Your task to perform on an android device: uninstall "NewsBreak: Local News & Alerts" Image 0: 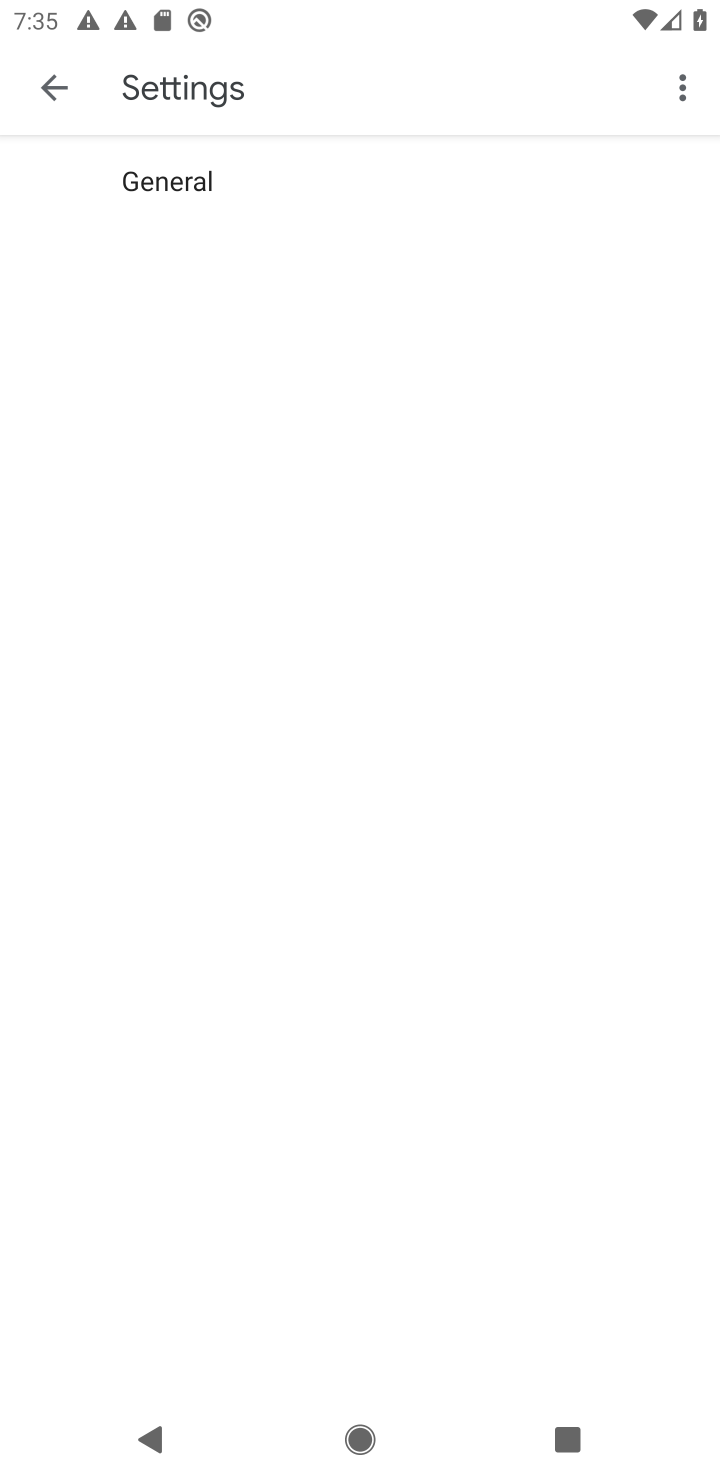
Step 0: press home button
Your task to perform on an android device: uninstall "NewsBreak: Local News & Alerts" Image 1: 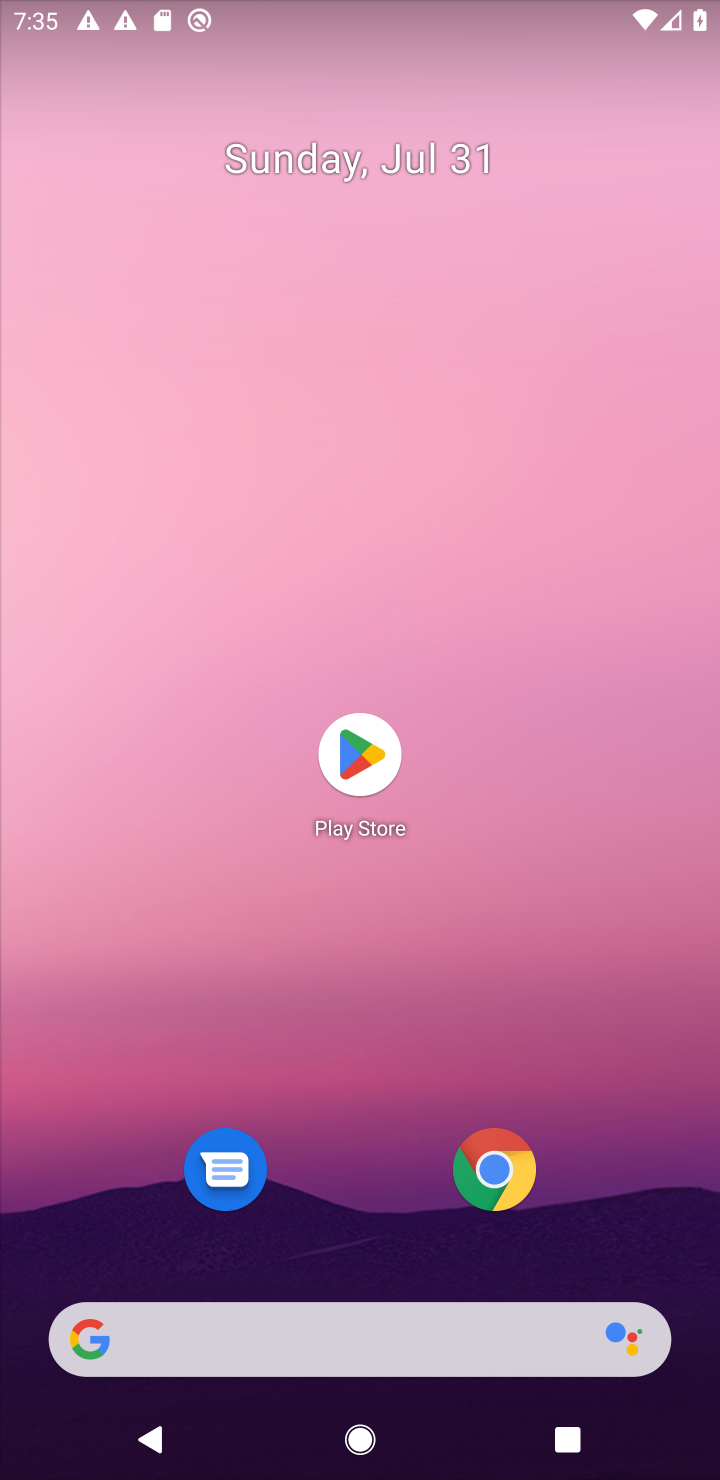
Step 1: click (367, 755)
Your task to perform on an android device: uninstall "NewsBreak: Local News & Alerts" Image 2: 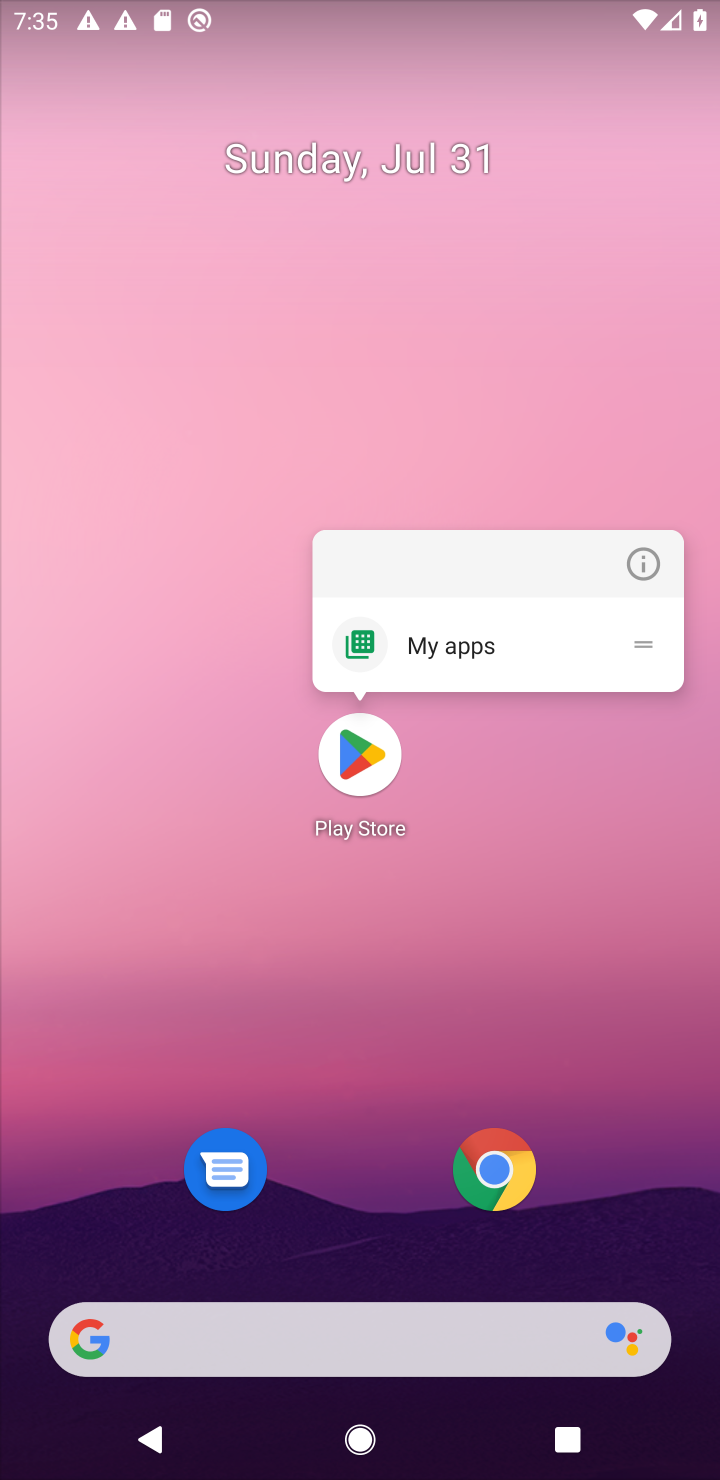
Step 2: click (358, 755)
Your task to perform on an android device: uninstall "NewsBreak: Local News & Alerts" Image 3: 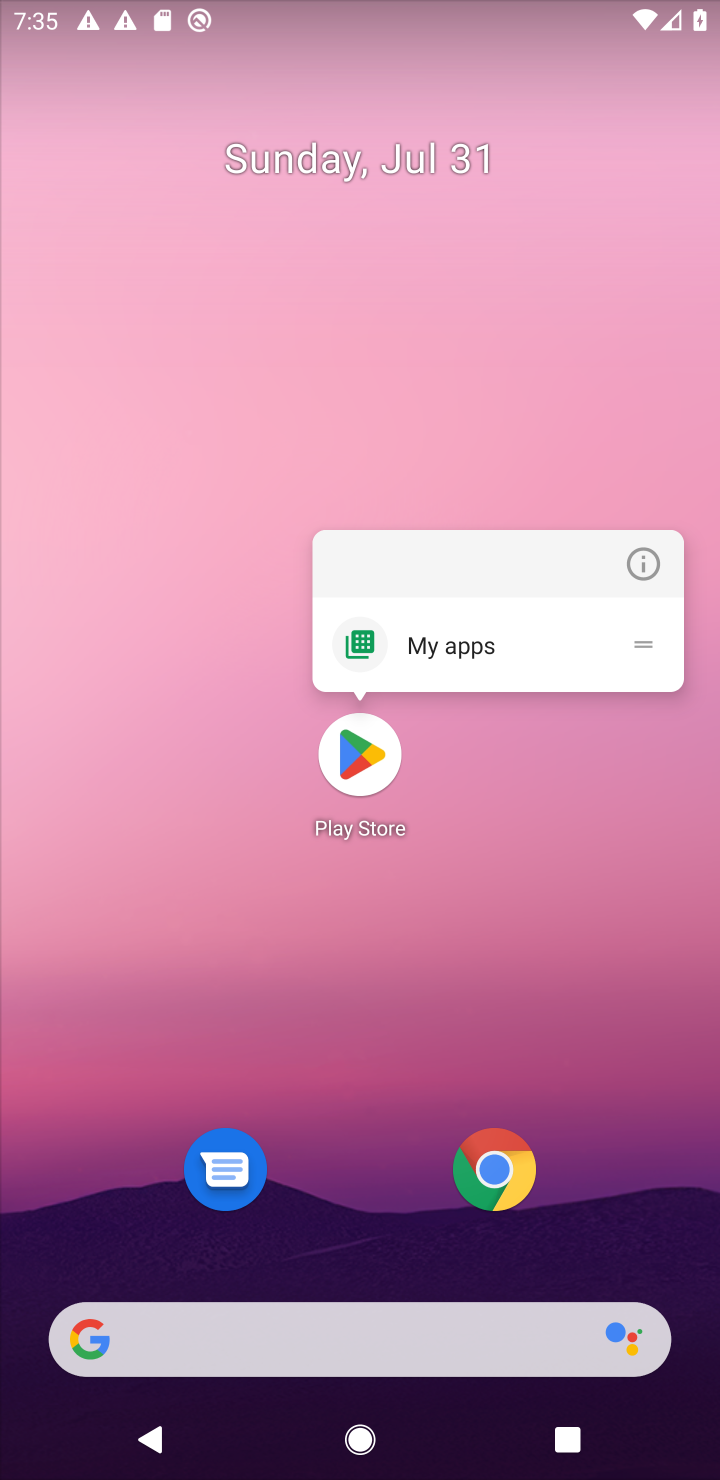
Step 3: click (358, 755)
Your task to perform on an android device: uninstall "NewsBreak: Local News & Alerts" Image 4: 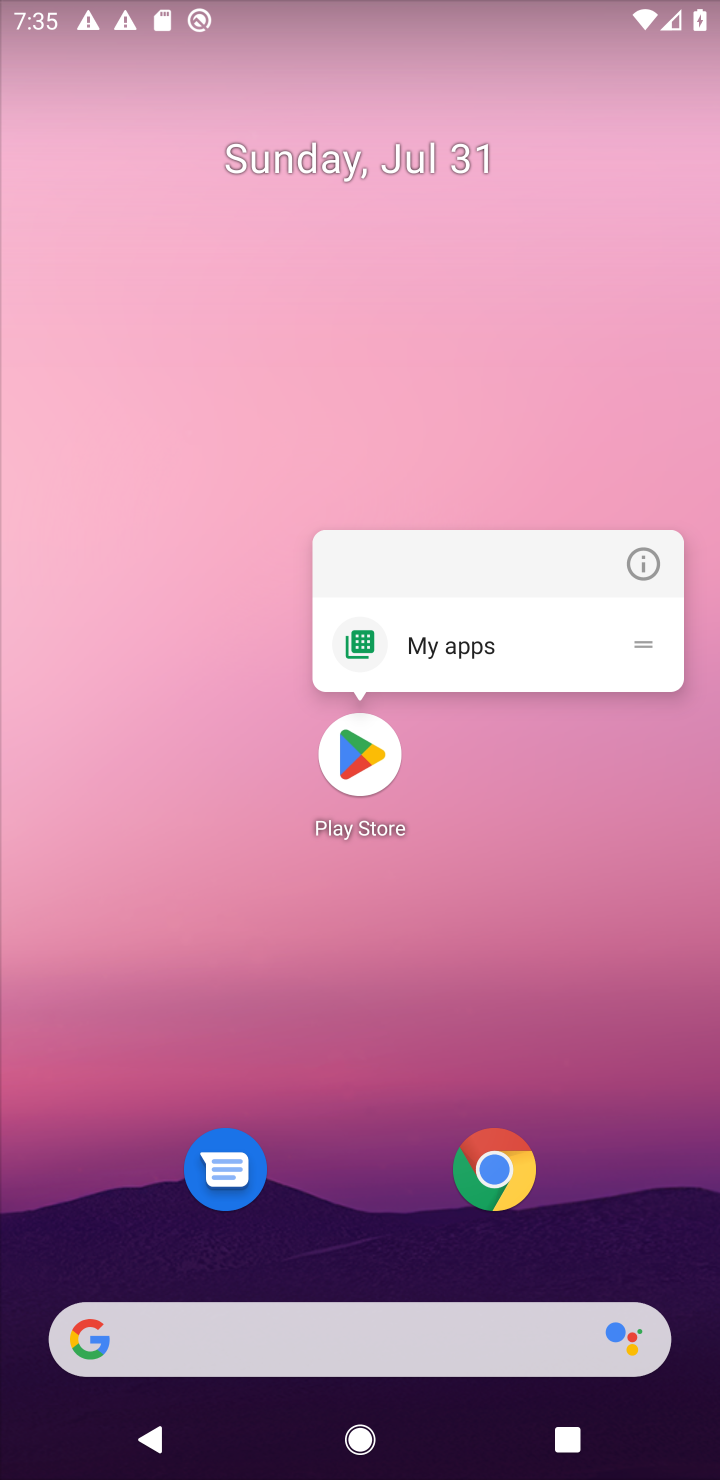
Step 4: click (356, 756)
Your task to perform on an android device: uninstall "NewsBreak: Local News & Alerts" Image 5: 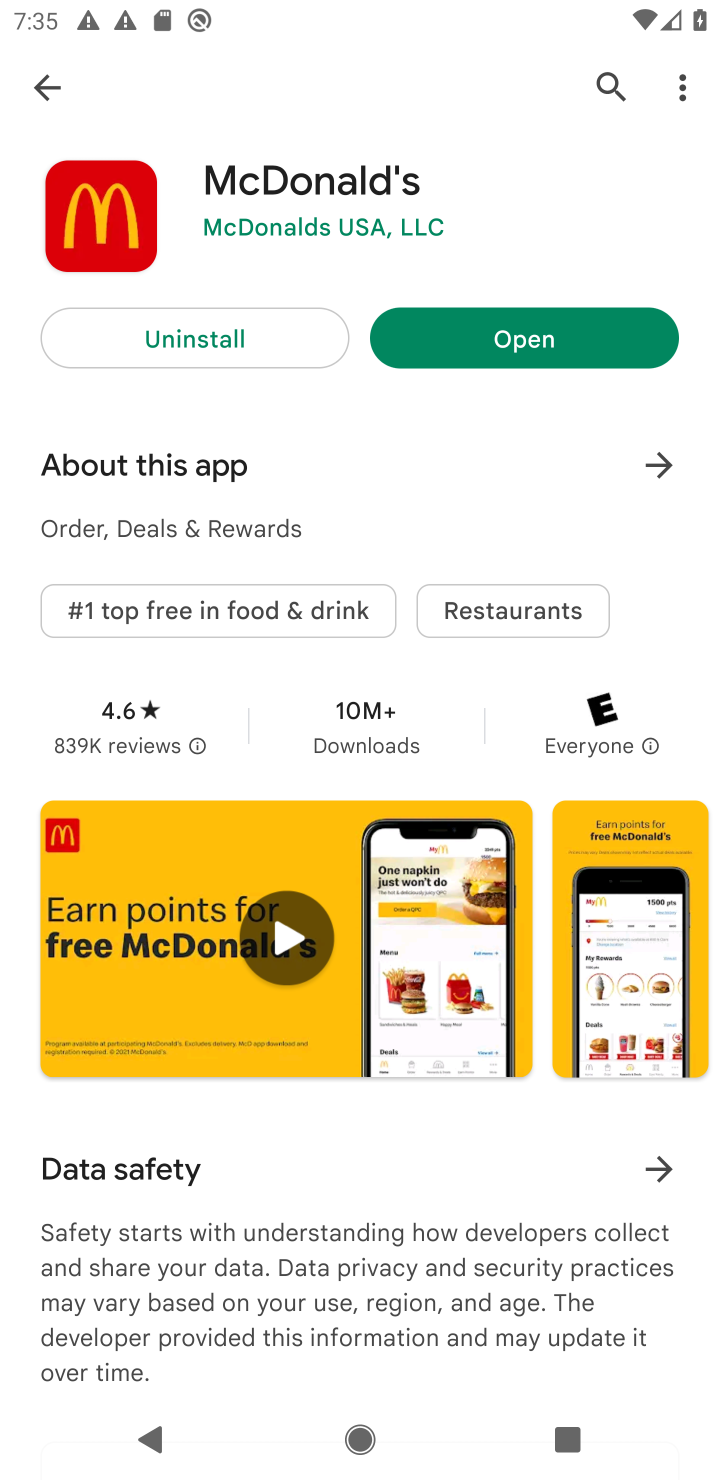
Step 5: click (606, 82)
Your task to perform on an android device: uninstall "NewsBreak: Local News & Alerts" Image 6: 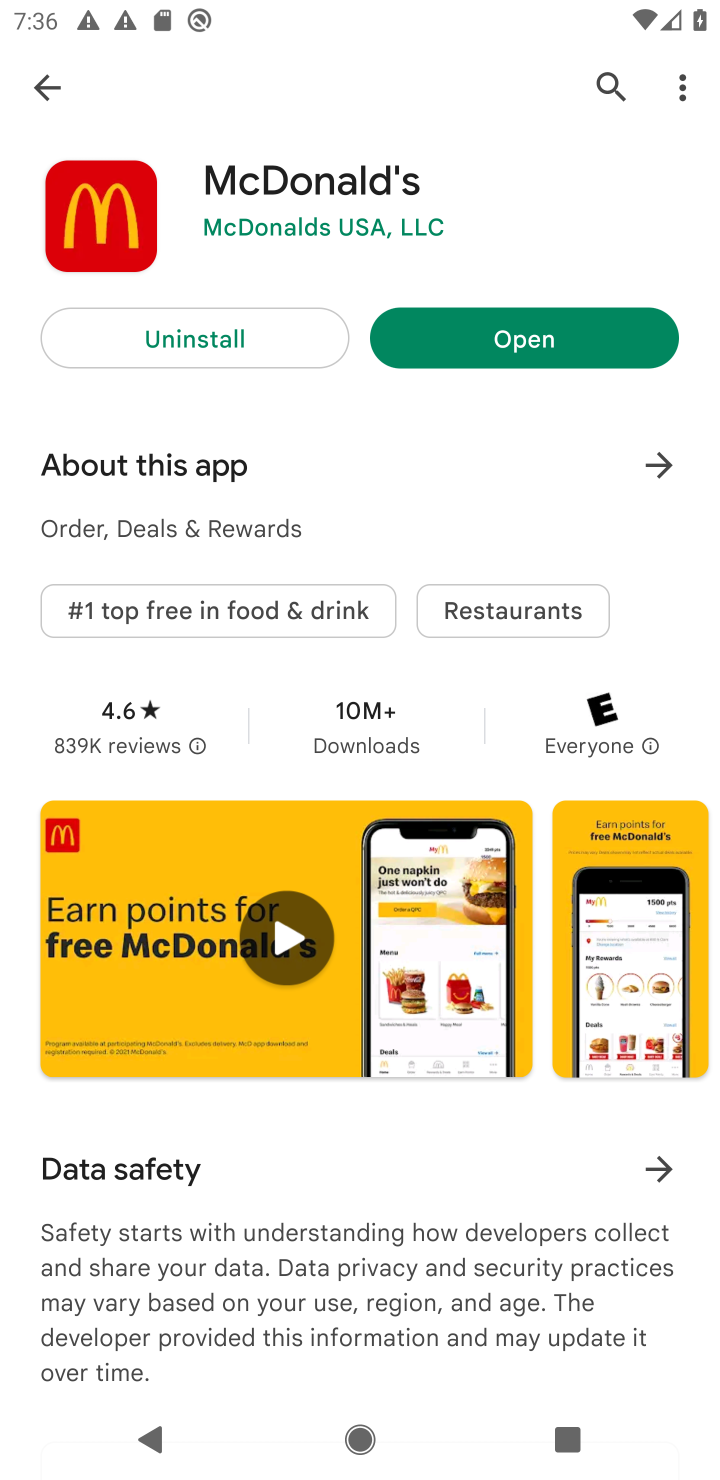
Step 6: click (604, 80)
Your task to perform on an android device: uninstall "NewsBreak: Local News & Alerts" Image 7: 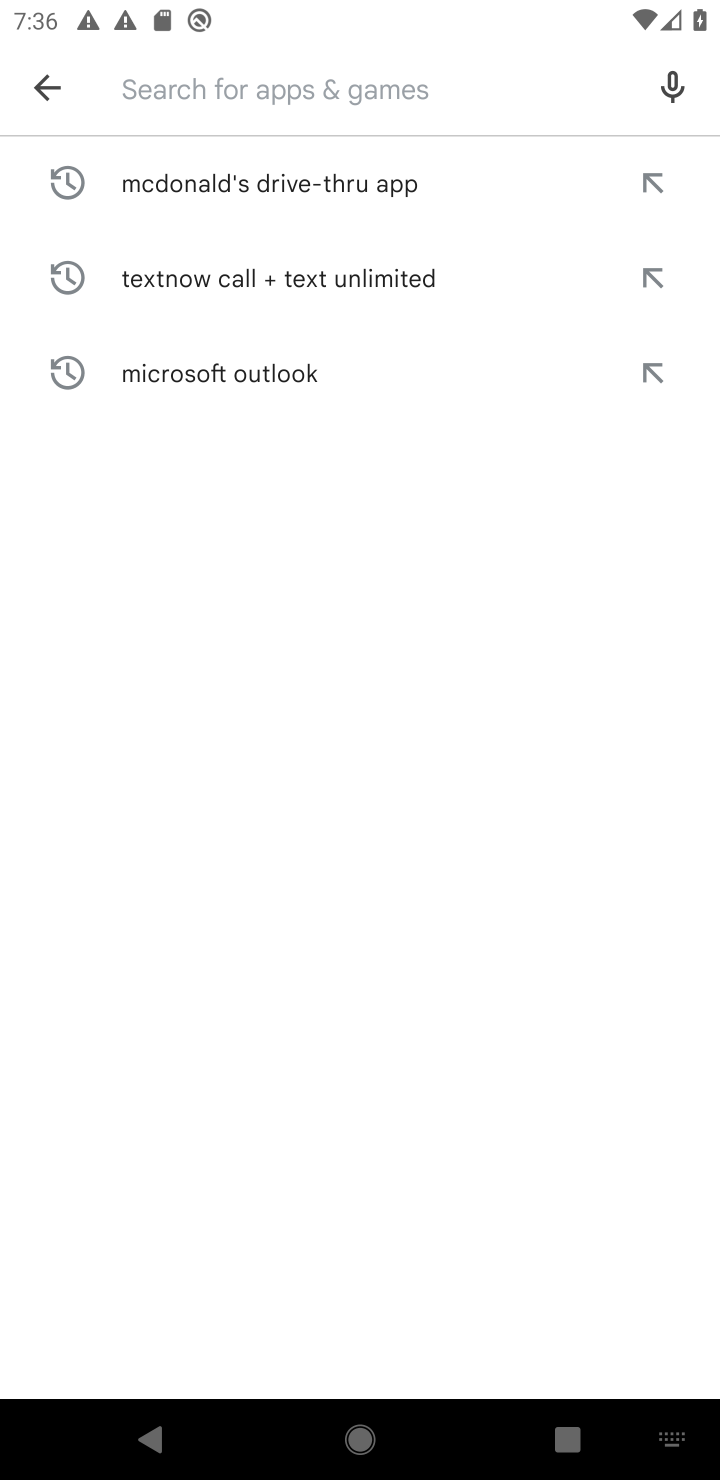
Step 7: type "NewsBreak: Local News & Alerts"
Your task to perform on an android device: uninstall "NewsBreak: Local News & Alerts" Image 8: 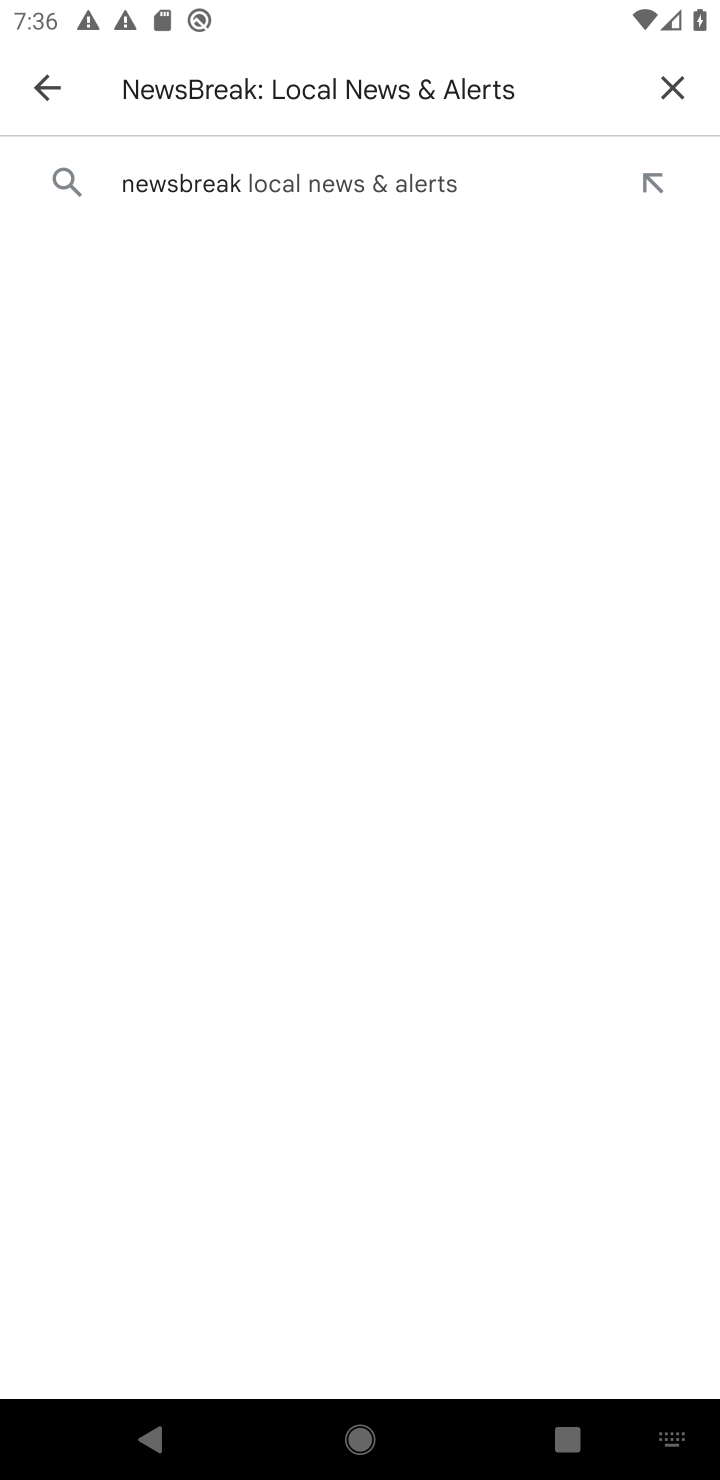
Step 8: click (332, 174)
Your task to perform on an android device: uninstall "NewsBreak: Local News & Alerts" Image 9: 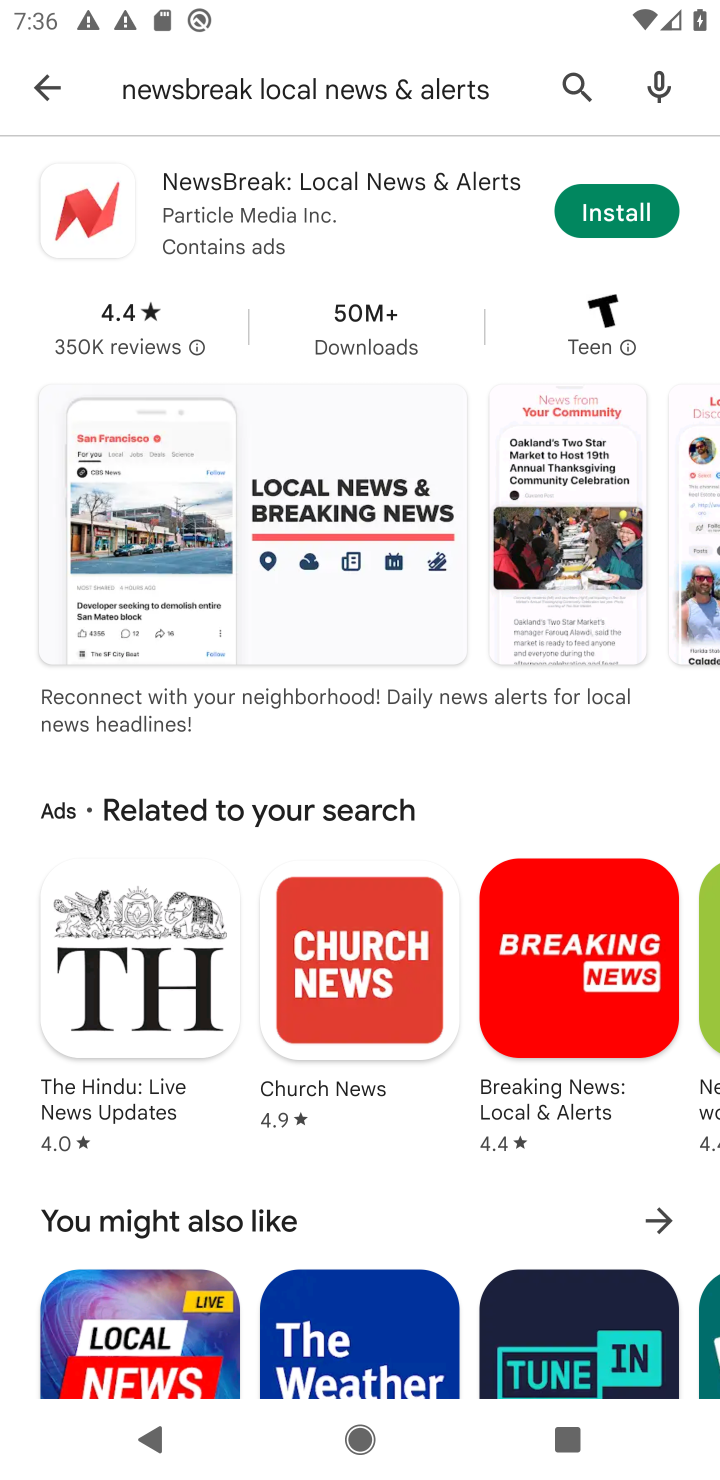
Step 9: task complete